Your task to perform on an android device: open wifi settings Image 0: 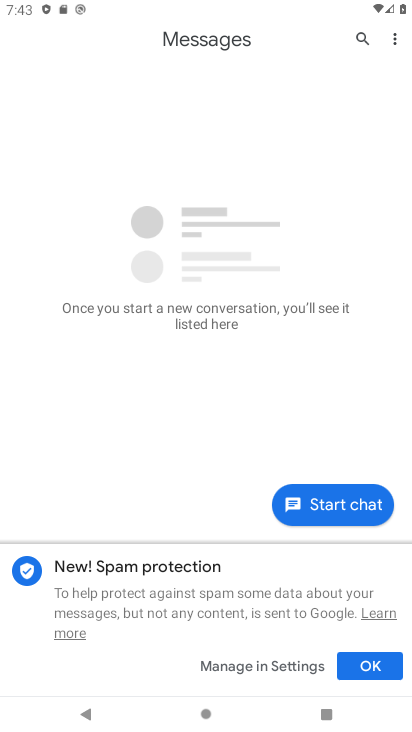
Step 0: press home button
Your task to perform on an android device: open wifi settings Image 1: 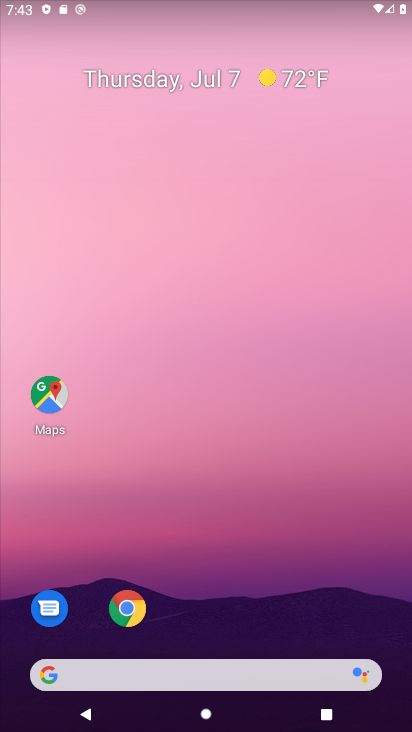
Step 1: drag from (396, 671) to (360, 119)
Your task to perform on an android device: open wifi settings Image 2: 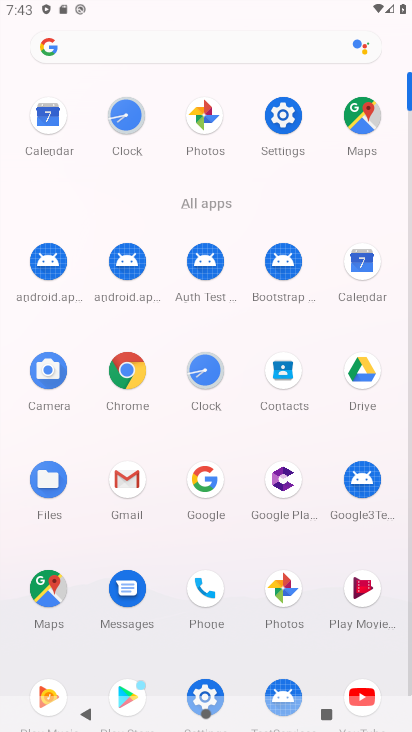
Step 2: click (272, 110)
Your task to perform on an android device: open wifi settings Image 3: 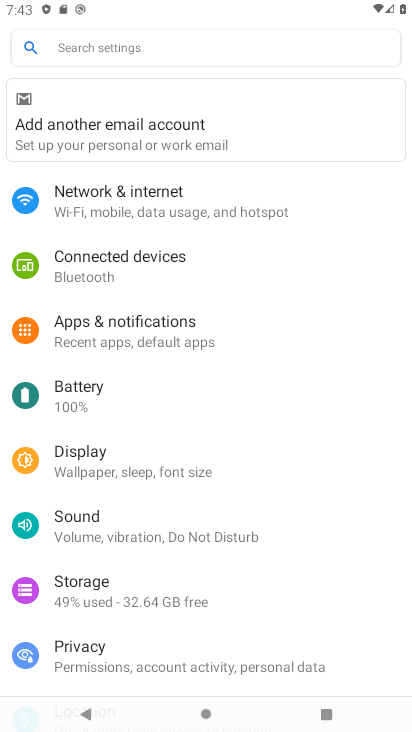
Step 3: click (164, 206)
Your task to perform on an android device: open wifi settings Image 4: 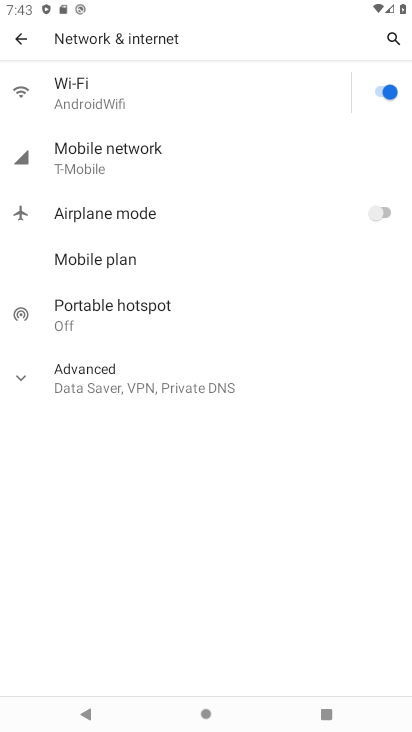
Step 4: click (69, 94)
Your task to perform on an android device: open wifi settings Image 5: 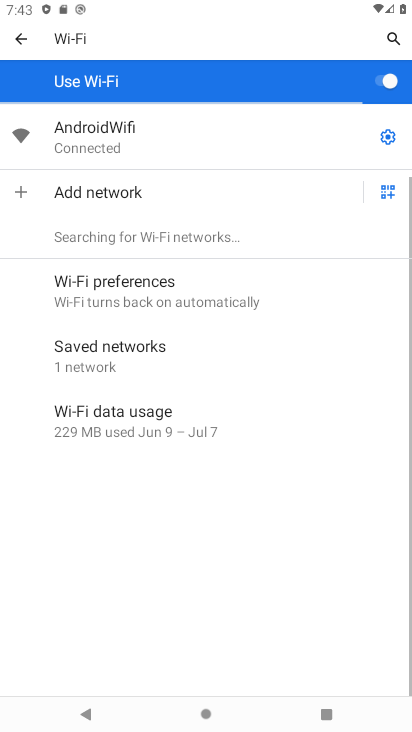
Step 5: click (391, 135)
Your task to perform on an android device: open wifi settings Image 6: 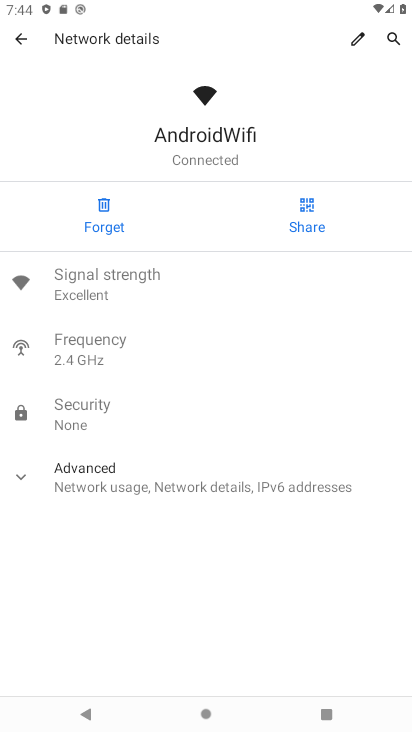
Step 6: task complete